Your task to perform on an android device: Is it going to rain tomorrow? Image 0: 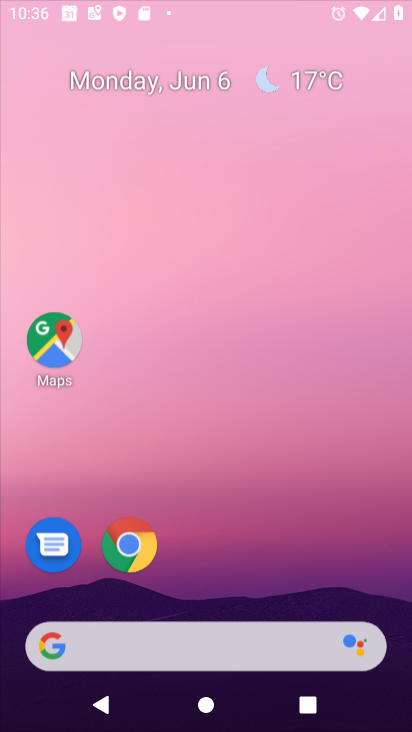
Step 0: click (55, 345)
Your task to perform on an android device: Is it going to rain tomorrow? Image 1: 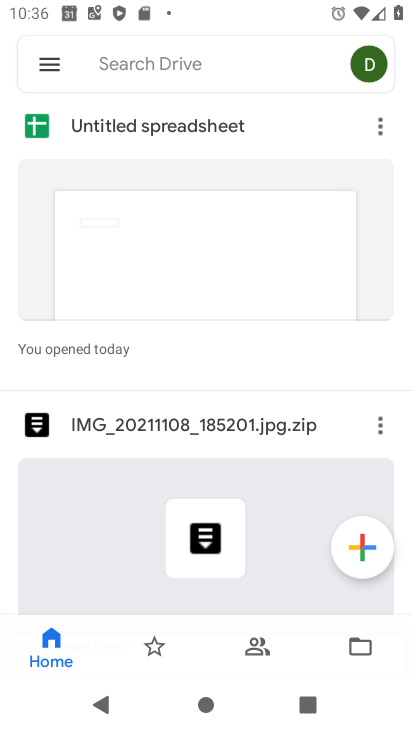
Step 1: press home button
Your task to perform on an android device: Is it going to rain tomorrow? Image 2: 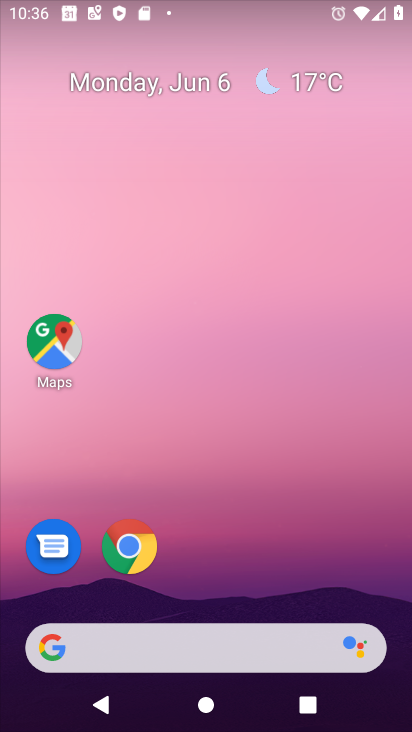
Step 2: click (137, 650)
Your task to perform on an android device: Is it going to rain tomorrow? Image 3: 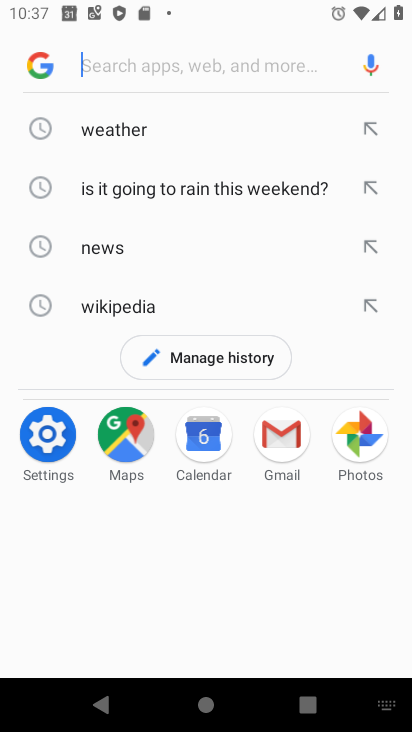
Step 3: click (186, 188)
Your task to perform on an android device: Is it going to rain tomorrow? Image 4: 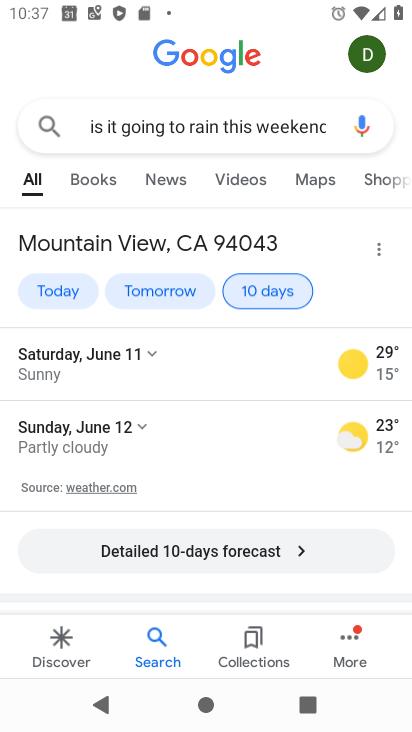
Step 4: click (146, 290)
Your task to perform on an android device: Is it going to rain tomorrow? Image 5: 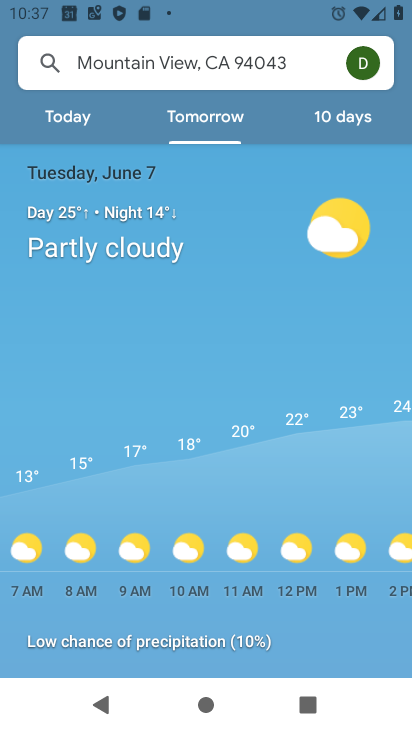
Step 5: task complete